Your task to perform on an android device: Open Maps and search for coffee Image 0: 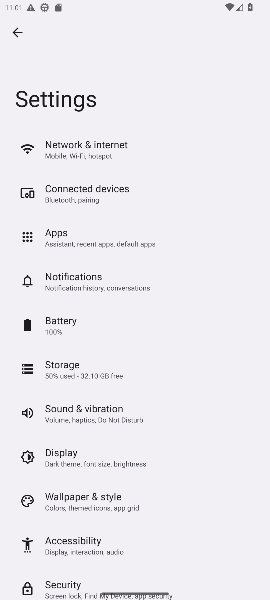
Step 0: press home button
Your task to perform on an android device: Open Maps and search for coffee Image 1: 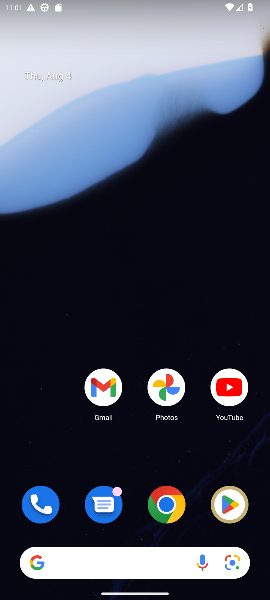
Step 1: drag from (135, 464) to (135, 147)
Your task to perform on an android device: Open Maps and search for coffee Image 2: 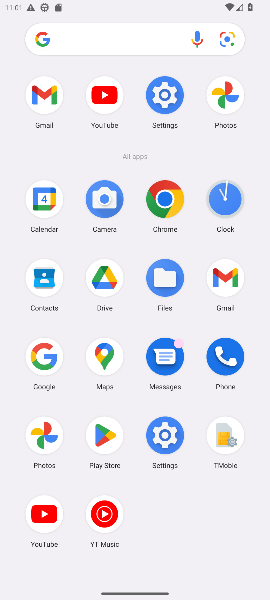
Step 2: click (103, 358)
Your task to perform on an android device: Open Maps and search for coffee Image 3: 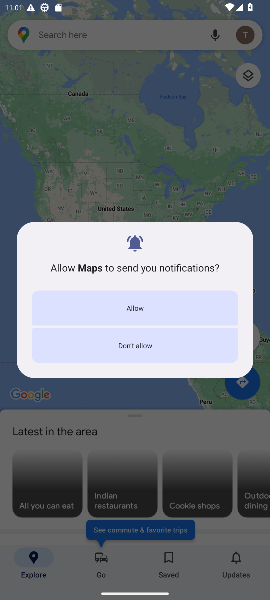
Step 3: click (112, 310)
Your task to perform on an android device: Open Maps and search for coffee Image 4: 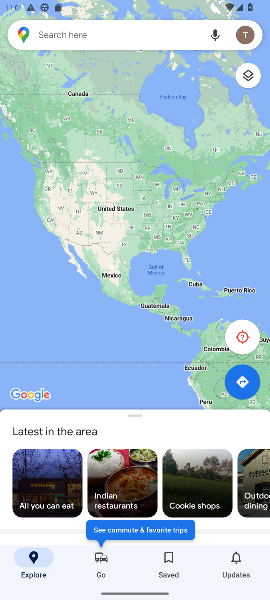
Step 4: click (135, 34)
Your task to perform on an android device: Open Maps and search for coffee Image 5: 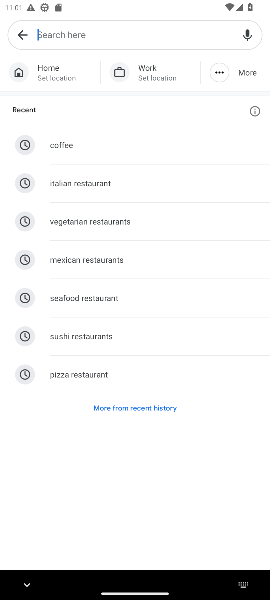
Step 5: type "coffee"
Your task to perform on an android device: Open Maps and search for coffee Image 6: 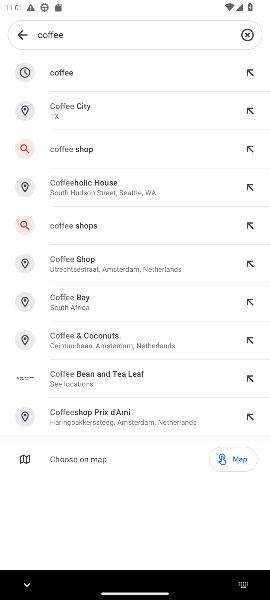
Step 6: click (112, 62)
Your task to perform on an android device: Open Maps and search for coffee Image 7: 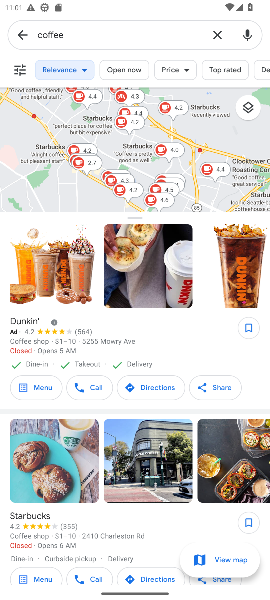
Step 7: task complete